Your task to perform on an android device: Open Chrome and go to settings Image 0: 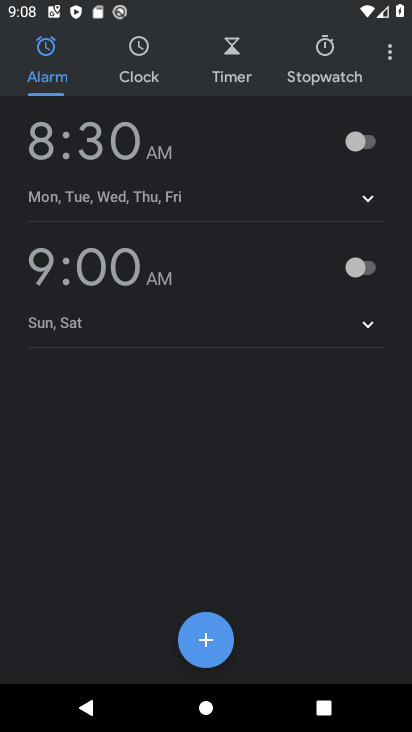
Step 0: press back button
Your task to perform on an android device: Open Chrome and go to settings Image 1: 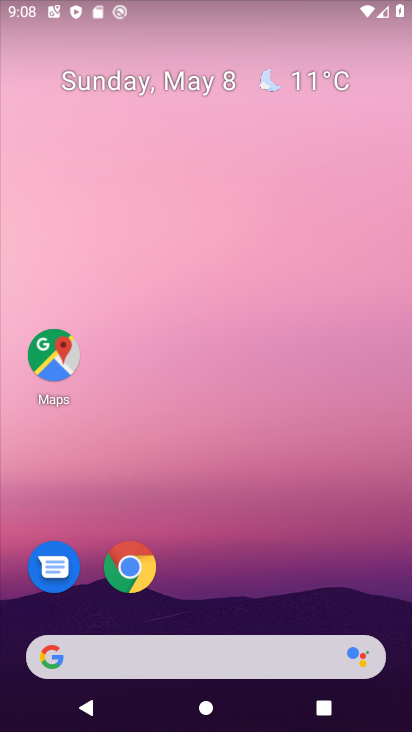
Step 1: click (135, 563)
Your task to perform on an android device: Open Chrome and go to settings Image 2: 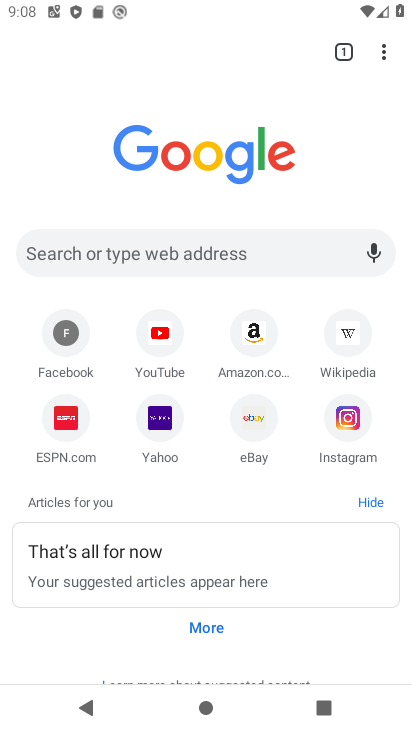
Step 2: task complete